Your task to perform on an android device: toggle wifi Image 0: 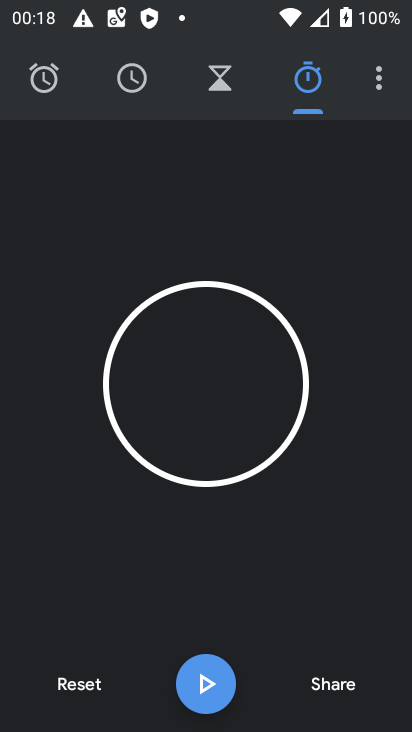
Step 0: press back button
Your task to perform on an android device: toggle wifi Image 1: 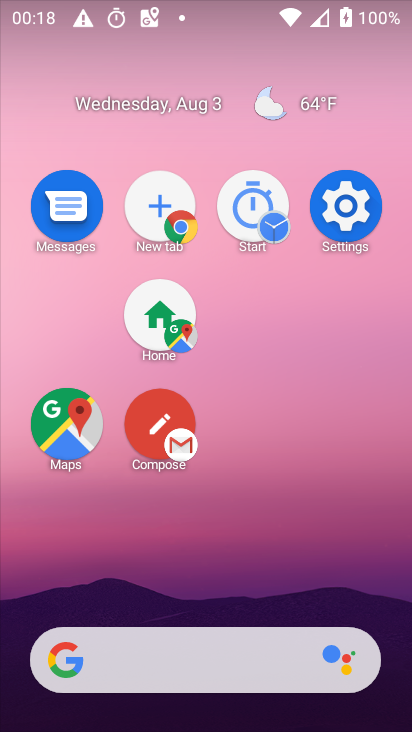
Step 1: click (346, 214)
Your task to perform on an android device: toggle wifi Image 2: 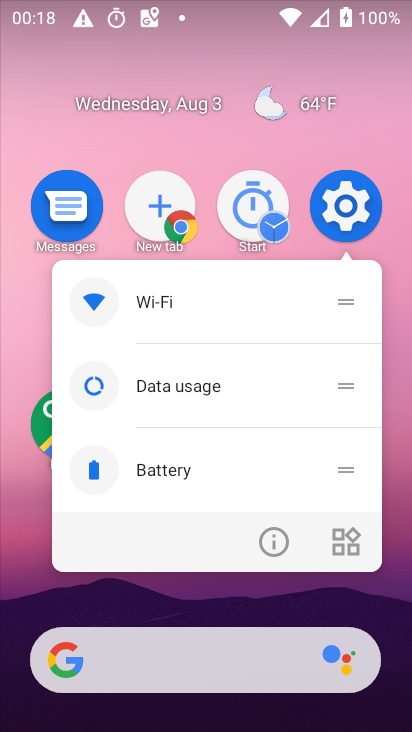
Step 2: click (347, 214)
Your task to perform on an android device: toggle wifi Image 3: 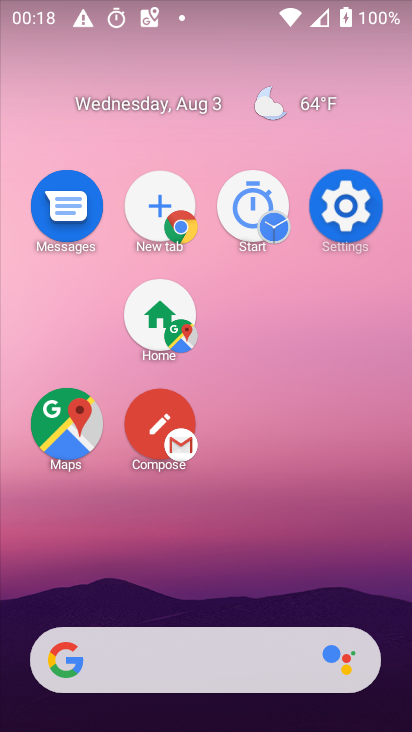
Step 3: click (345, 218)
Your task to perform on an android device: toggle wifi Image 4: 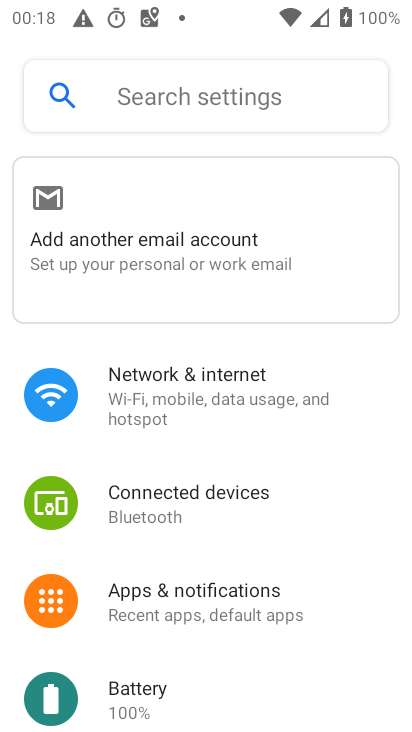
Step 4: click (180, 379)
Your task to perform on an android device: toggle wifi Image 5: 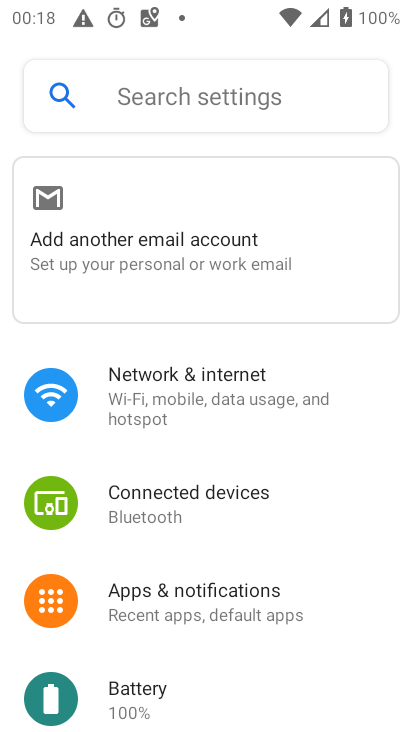
Step 5: click (188, 373)
Your task to perform on an android device: toggle wifi Image 6: 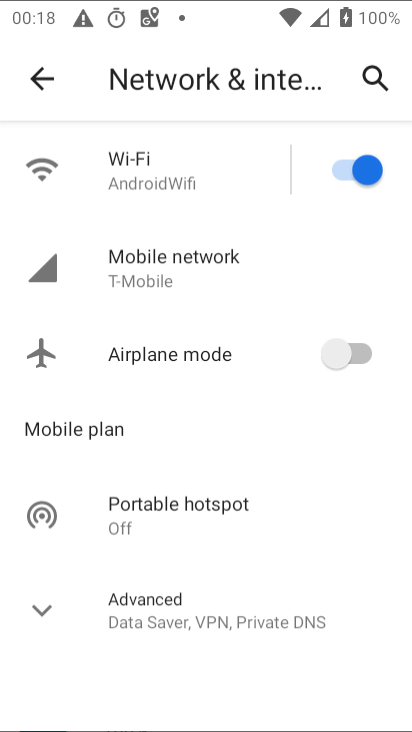
Step 6: click (190, 372)
Your task to perform on an android device: toggle wifi Image 7: 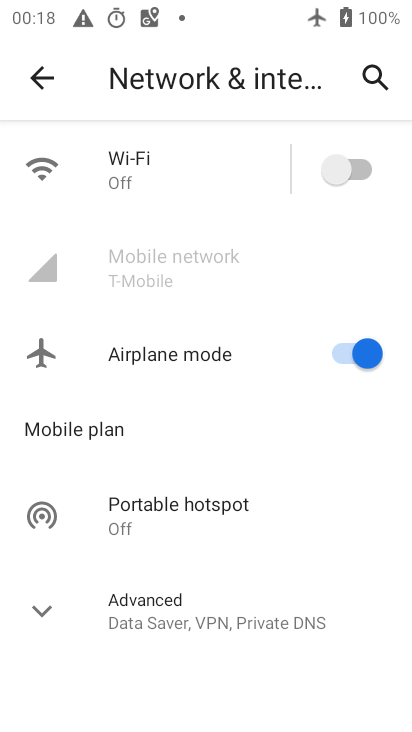
Step 7: task complete